Your task to perform on an android device: Search for Mexican restaurants on Maps Image 0: 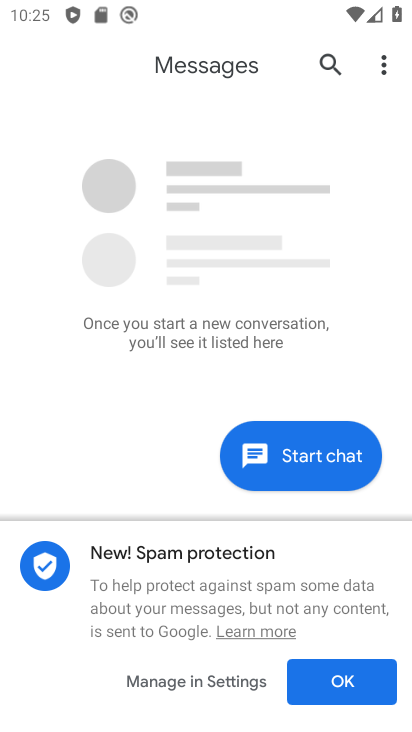
Step 0: press home button
Your task to perform on an android device: Search for Mexican restaurants on Maps Image 1: 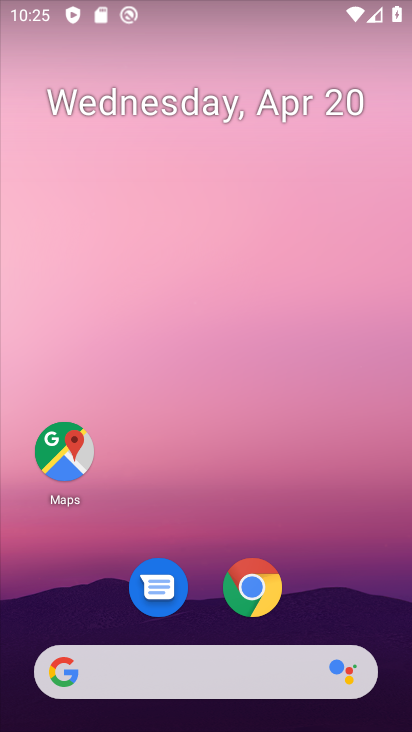
Step 1: drag from (209, 619) to (244, 32)
Your task to perform on an android device: Search for Mexican restaurants on Maps Image 2: 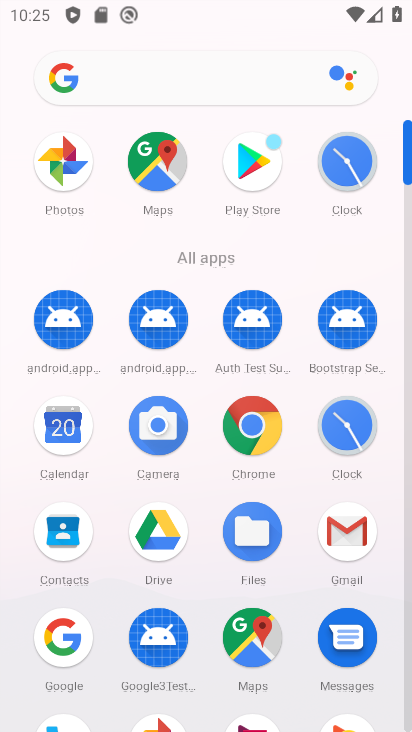
Step 2: click (154, 157)
Your task to perform on an android device: Search for Mexican restaurants on Maps Image 3: 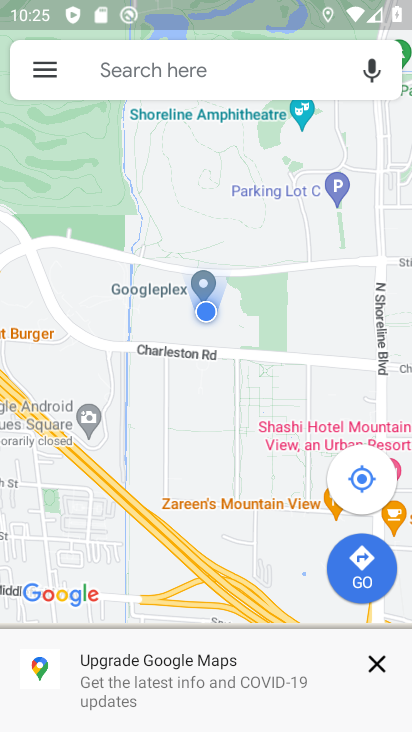
Step 3: click (113, 65)
Your task to perform on an android device: Search for Mexican restaurants on Maps Image 4: 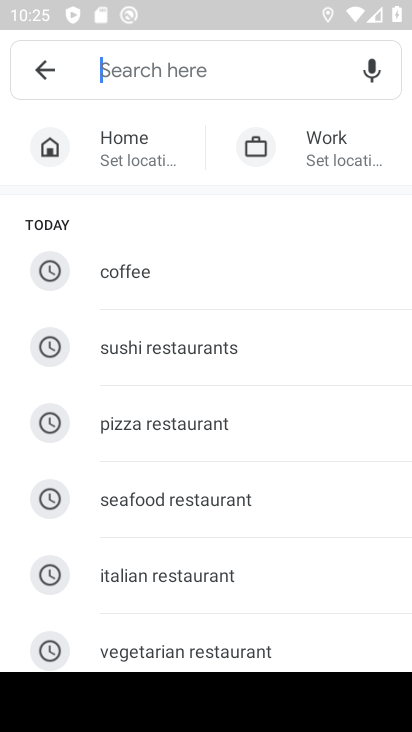
Step 4: drag from (189, 617) to (230, 192)
Your task to perform on an android device: Search for Mexican restaurants on Maps Image 5: 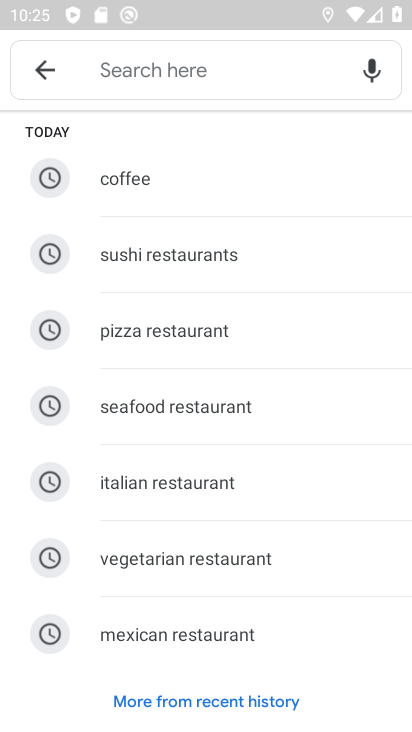
Step 5: click (278, 630)
Your task to perform on an android device: Search for Mexican restaurants on Maps Image 6: 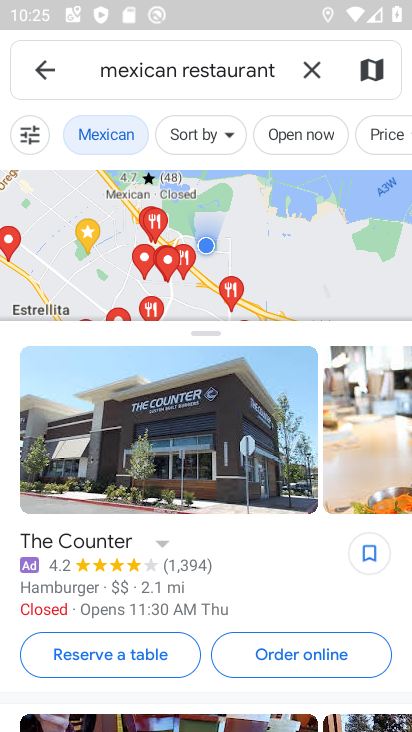
Step 6: task complete